Your task to perform on an android device: turn vacation reply on in the gmail app Image 0: 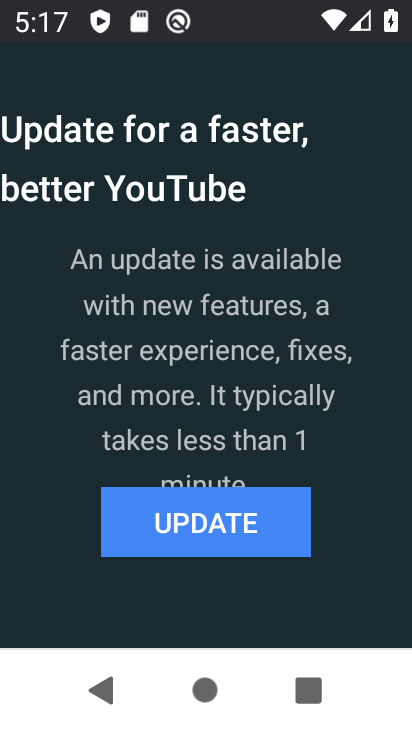
Step 0: press home button
Your task to perform on an android device: turn vacation reply on in the gmail app Image 1: 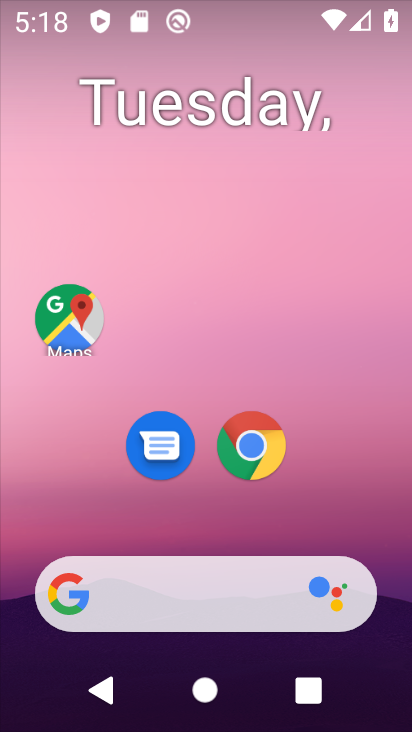
Step 1: drag from (304, 509) to (365, 126)
Your task to perform on an android device: turn vacation reply on in the gmail app Image 2: 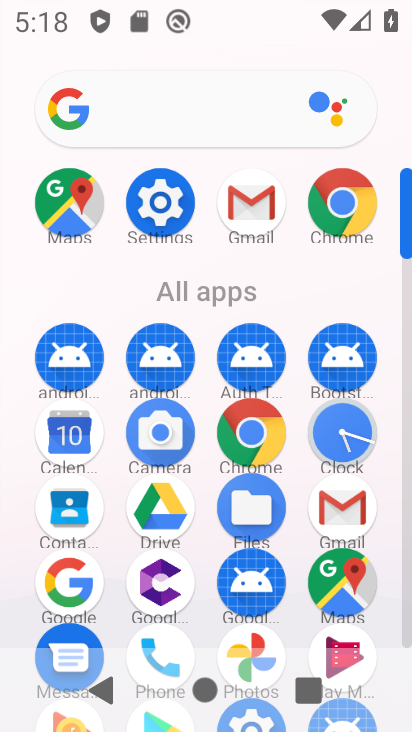
Step 2: click (249, 216)
Your task to perform on an android device: turn vacation reply on in the gmail app Image 3: 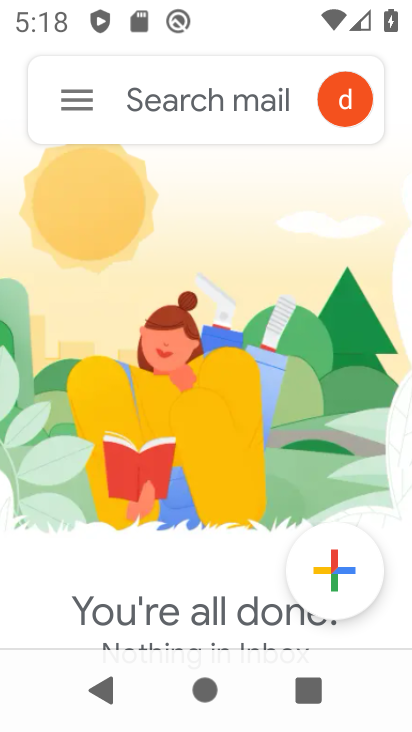
Step 3: click (80, 102)
Your task to perform on an android device: turn vacation reply on in the gmail app Image 4: 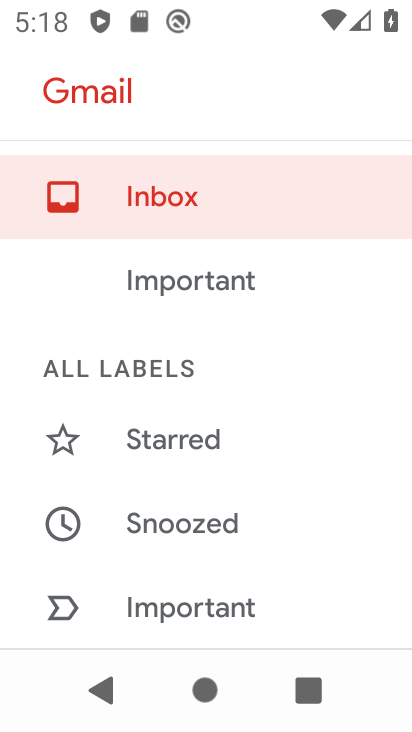
Step 4: drag from (290, 600) to (310, 258)
Your task to perform on an android device: turn vacation reply on in the gmail app Image 5: 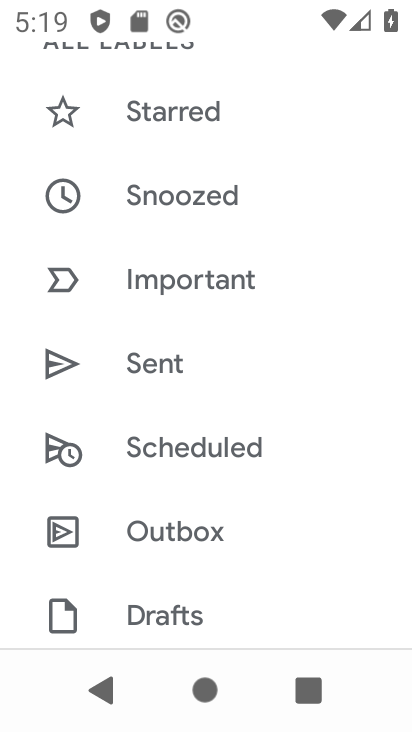
Step 5: drag from (324, 600) to (329, 259)
Your task to perform on an android device: turn vacation reply on in the gmail app Image 6: 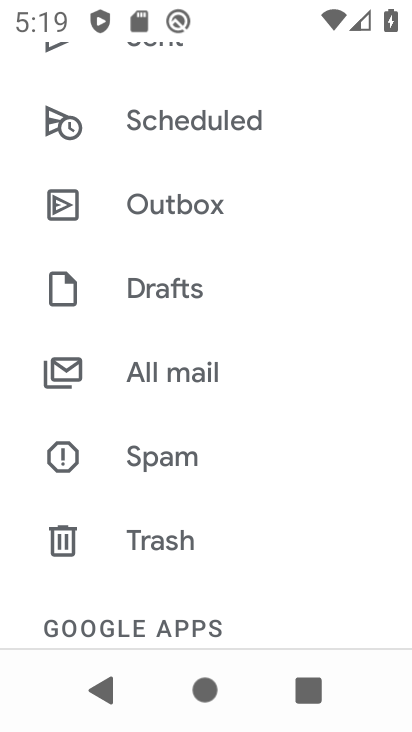
Step 6: drag from (305, 595) to (312, 335)
Your task to perform on an android device: turn vacation reply on in the gmail app Image 7: 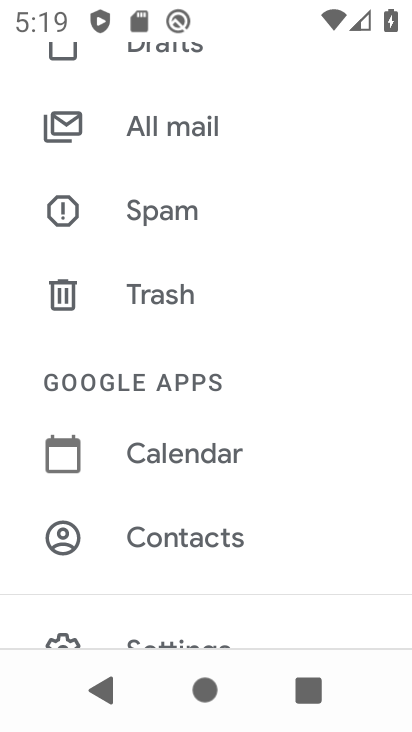
Step 7: drag from (322, 602) to (336, 306)
Your task to perform on an android device: turn vacation reply on in the gmail app Image 8: 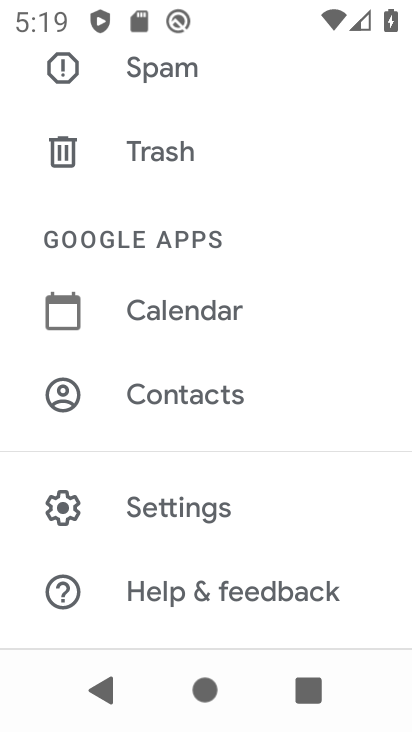
Step 8: click (176, 498)
Your task to perform on an android device: turn vacation reply on in the gmail app Image 9: 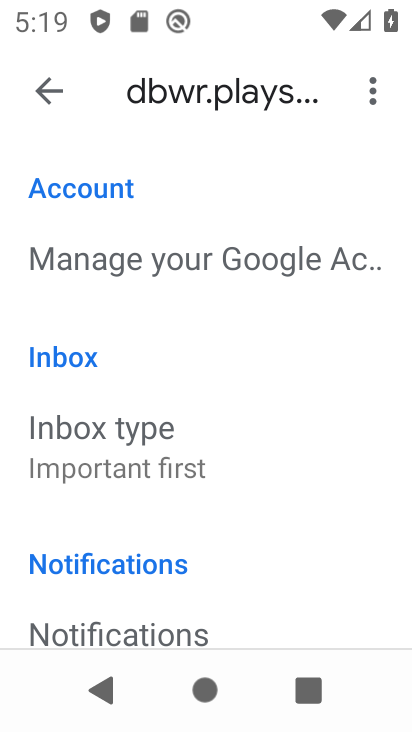
Step 9: drag from (278, 589) to (272, 182)
Your task to perform on an android device: turn vacation reply on in the gmail app Image 10: 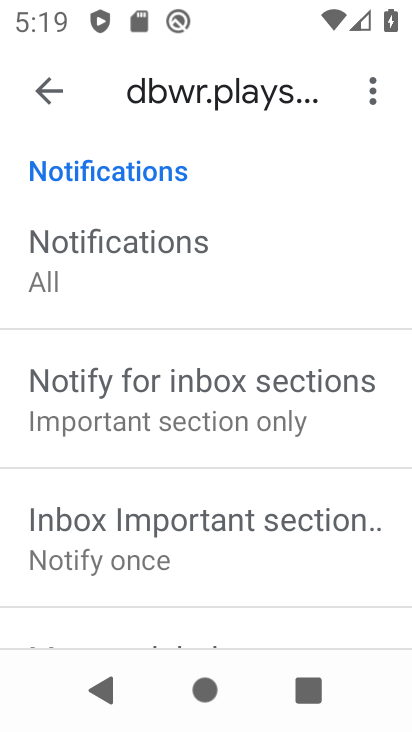
Step 10: drag from (260, 595) to (279, 233)
Your task to perform on an android device: turn vacation reply on in the gmail app Image 11: 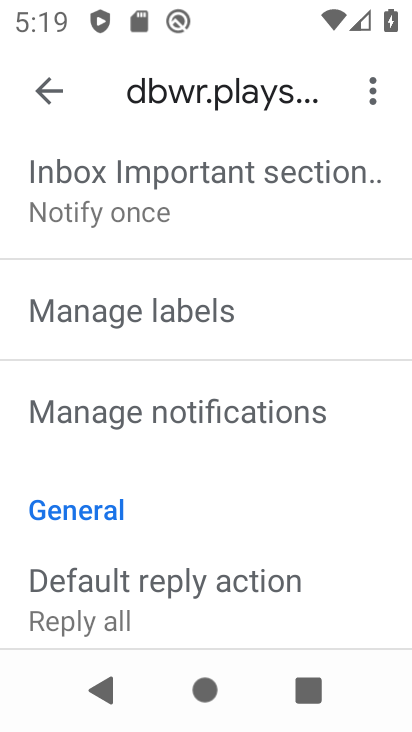
Step 11: drag from (254, 611) to (290, 264)
Your task to perform on an android device: turn vacation reply on in the gmail app Image 12: 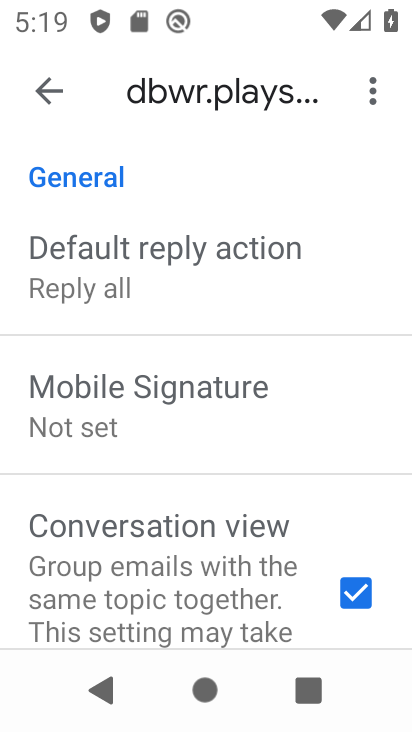
Step 12: drag from (284, 487) to (311, 292)
Your task to perform on an android device: turn vacation reply on in the gmail app Image 13: 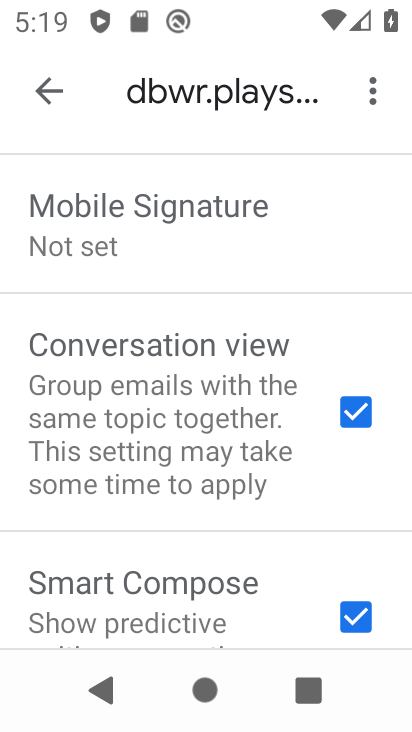
Step 13: drag from (272, 557) to (296, 326)
Your task to perform on an android device: turn vacation reply on in the gmail app Image 14: 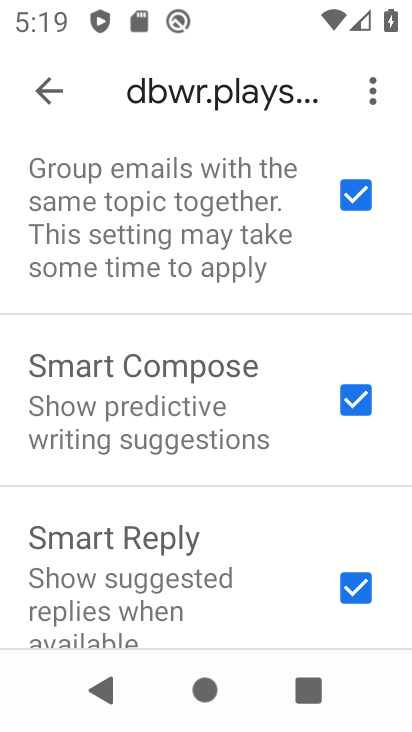
Step 14: drag from (275, 577) to (278, 269)
Your task to perform on an android device: turn vacation reply on in the gmail app Image 15: 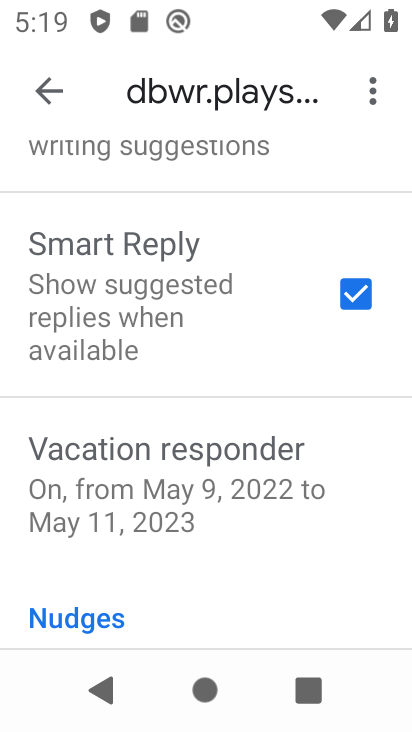
Step 15: click (186, 446)
Your task to perform on an android device: turn vacation reply on in the gmail app Image 16: 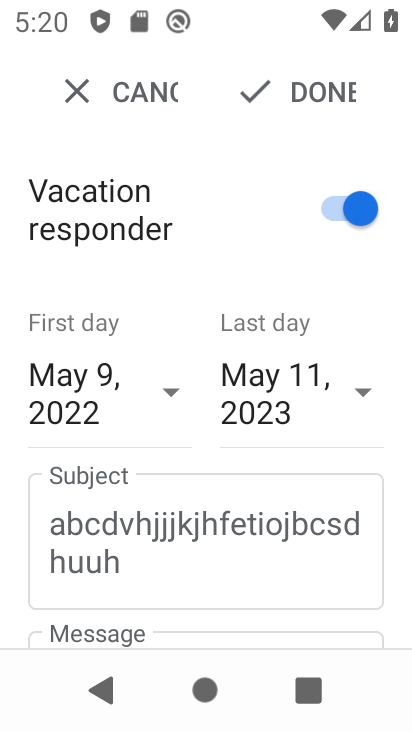
Step 16: task complete